Your task to perform on an android device: see creations saved in the google photos Image 0: 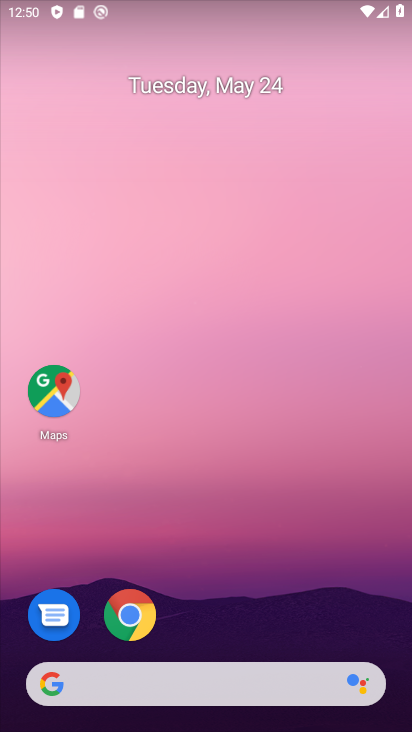
Step 0: drag from (200, 659) to (239, 192)
Your task to perform on an android device: see creations saved in the google photos Image 1: 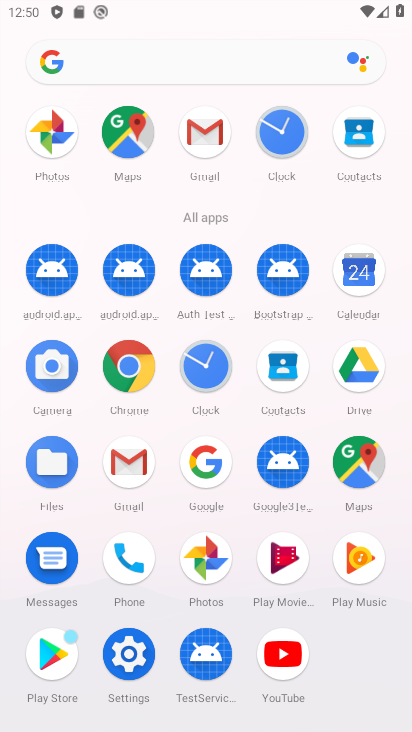
Step 1: click (53, 126)
Your task to perform on an android device: see creations saved in the google photos Image 2: 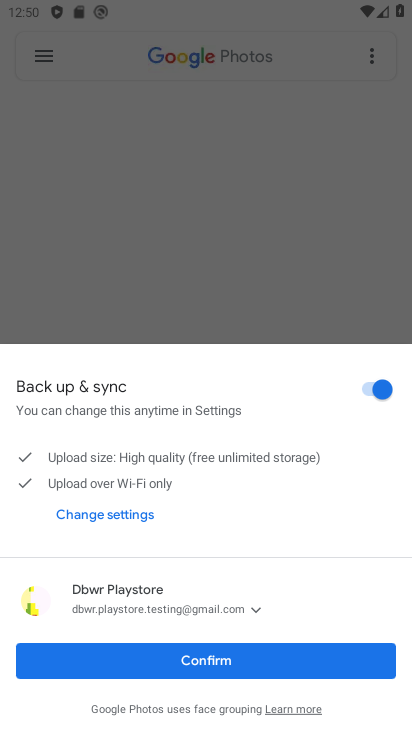
Step 2: click (206, 659)
Your task to perform on an android device: see creations saved in the google photos Image 3: 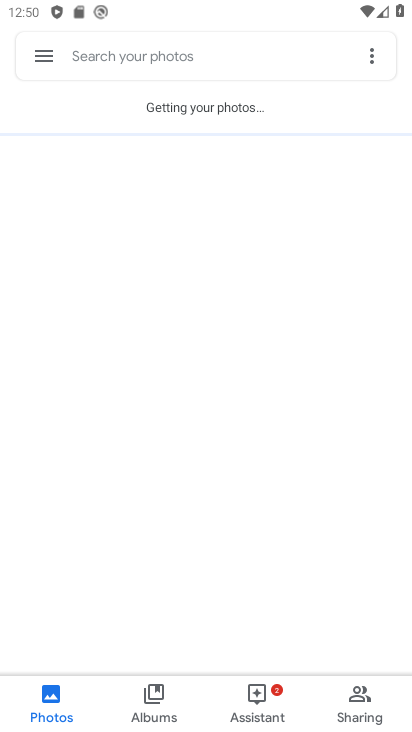
Step 3: click (45, 56)
Your task to perform on an android device: see creations saved in the google photos Image 4: 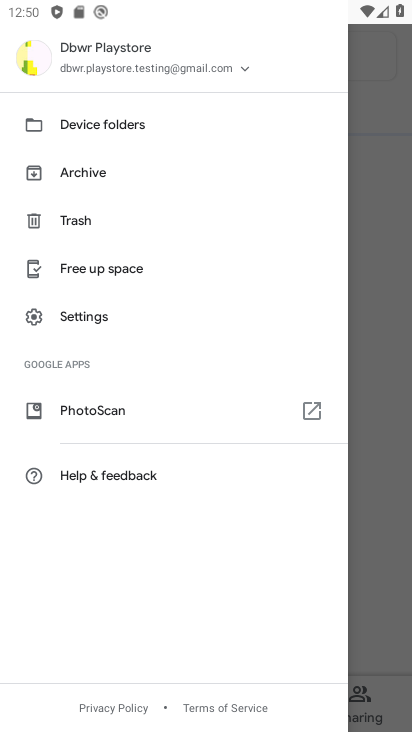
Step 4: click (144, 625)
Your task to perform on an android device: see creations saved in the google photos Image 5: 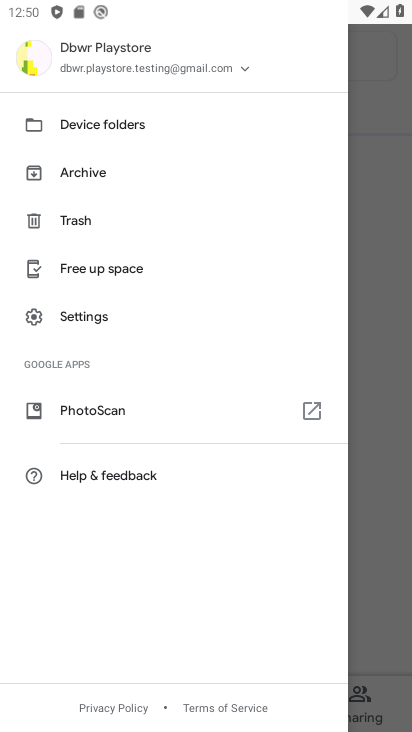
Step 5: click (381, 508)
Your task to perform on an android device: see creations saved in the google photos Image 6: 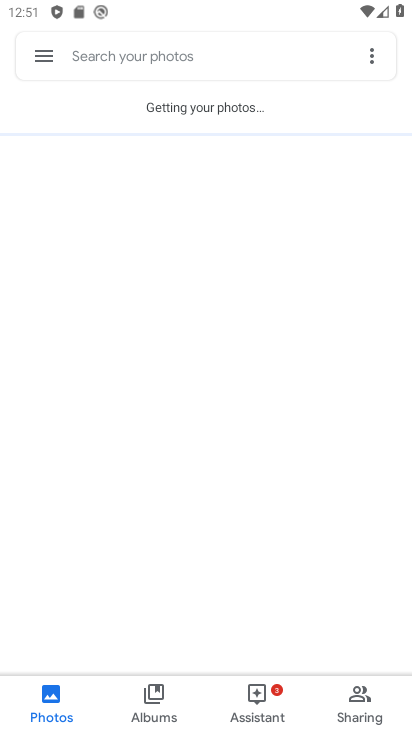
Step 6: click (153, 699)
Your task to perform on an android device: see creations saved in the google photos Image 7: 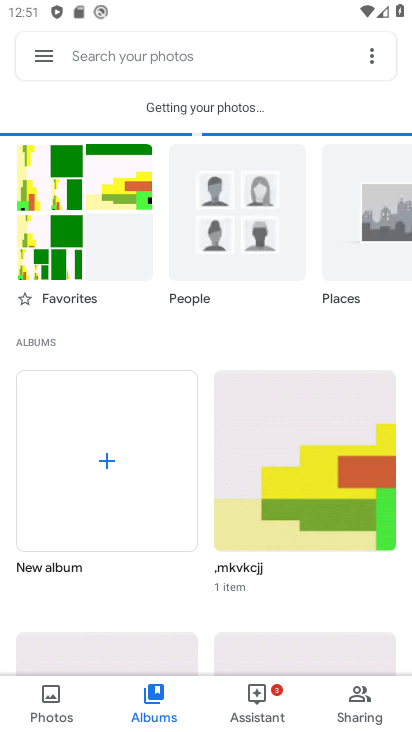
Step 7: task complete